Your task to perform on an android device: Open my contact list Image 0: 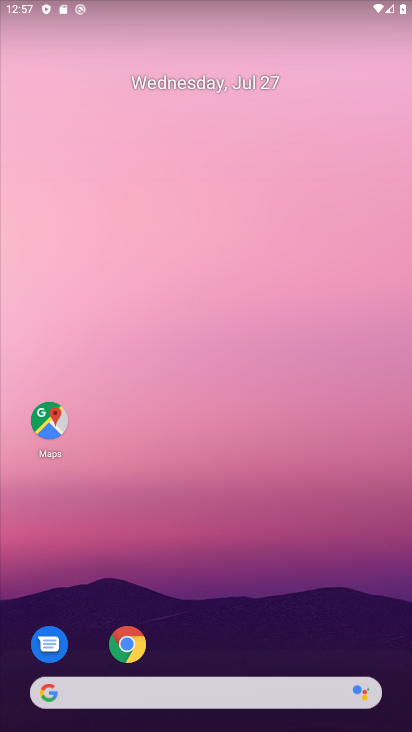
Step 0: drag from (290, 629) to (241, 59)
Your task to perform on an android device: Open my contact list Image 1: 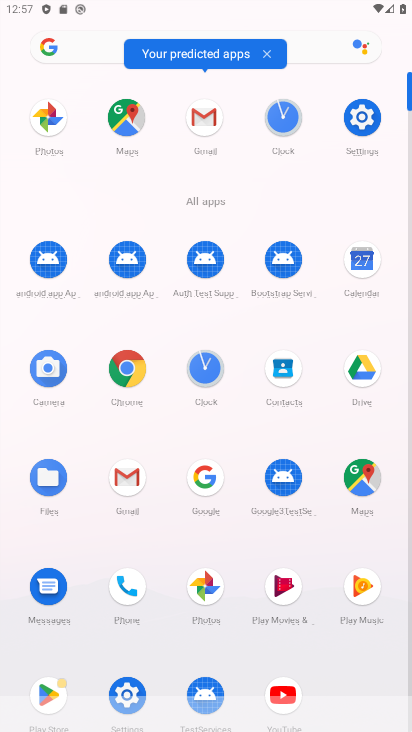
Step 1: click (272, 380)
Your task to perform on an android device: Open my contact list Image 2: 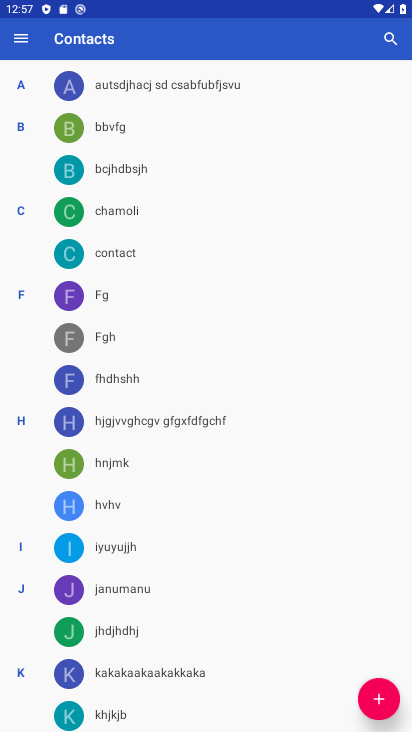
Step 2: task complete